Your task to perform on an android device: Go to notification settings Image 0: 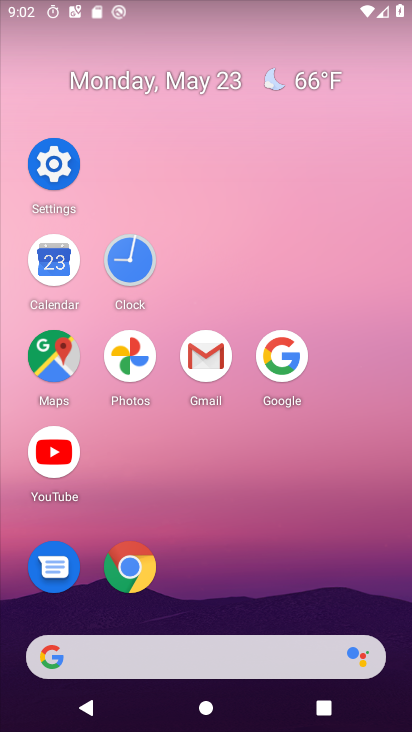
Step 0: click (71, 170)
Your task to perform on an android device: Go to notification settings Image 1: 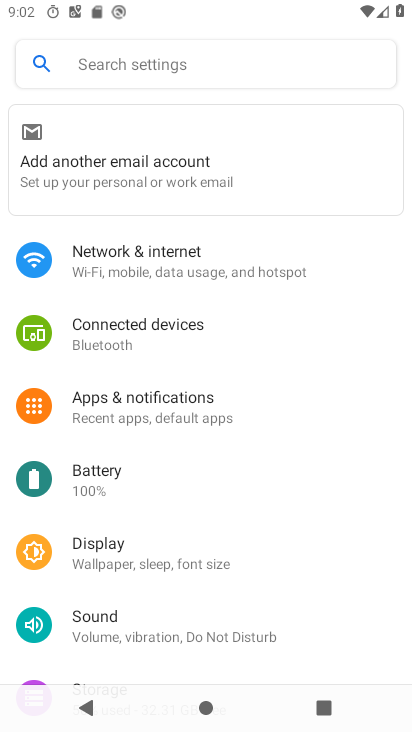
Step 1: click (177, 401)
Your task to perform on an android device: Go to notification settings Image 2: 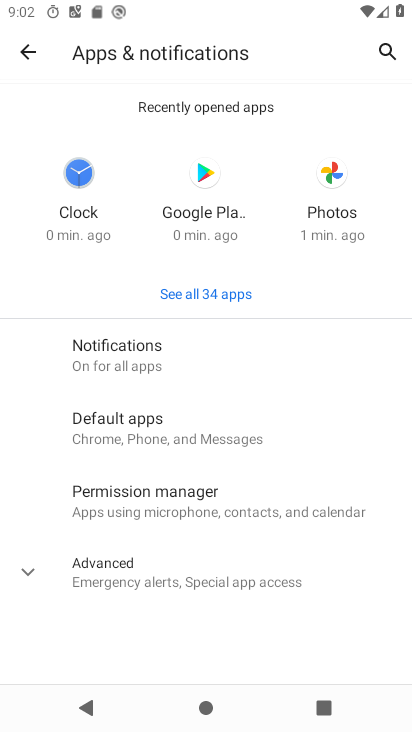
Step 2: task complete